Your task to perform on an android device: Open Google Chrome Image 0: 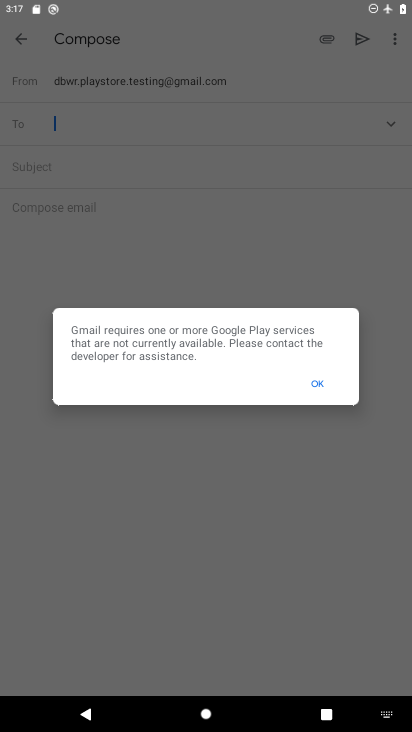
Step 0: press home button
Your task to perform on an android device: Open Google Chrome Image 1: 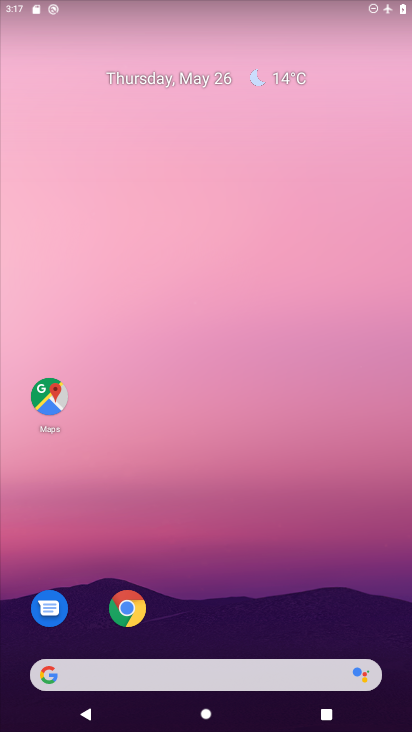
Step 1: drag from (280, 580) to (348, 128)
Your task to perform on an android device: Open Google Chrome Image 2: 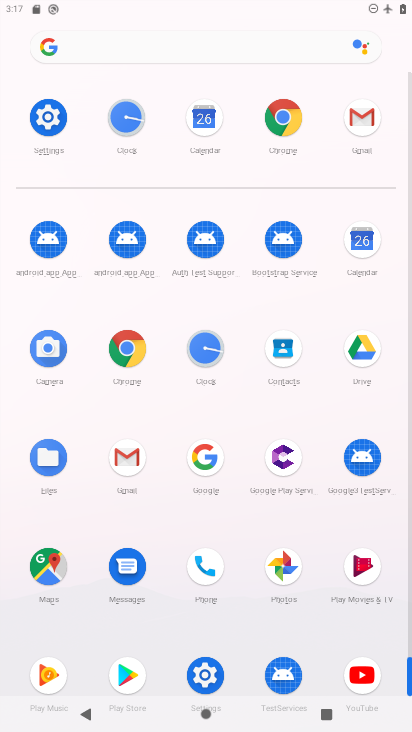
Step 2: click (290, 123)
Your task to perform on an android device: Open Google Chrome Image 3: 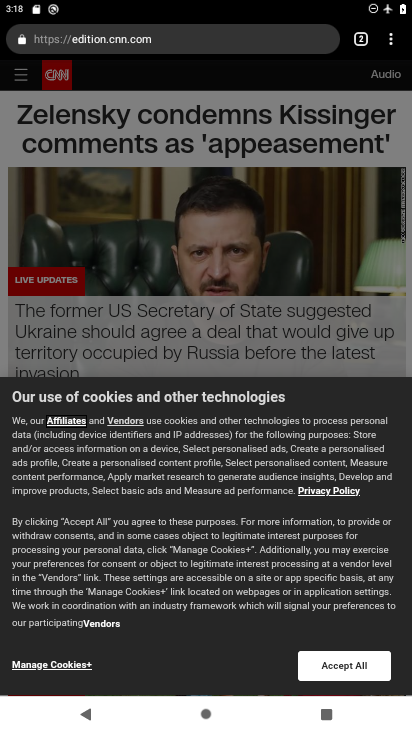
Step 3: task complete